Your task to perform on an android device: set an alarm Image 0: 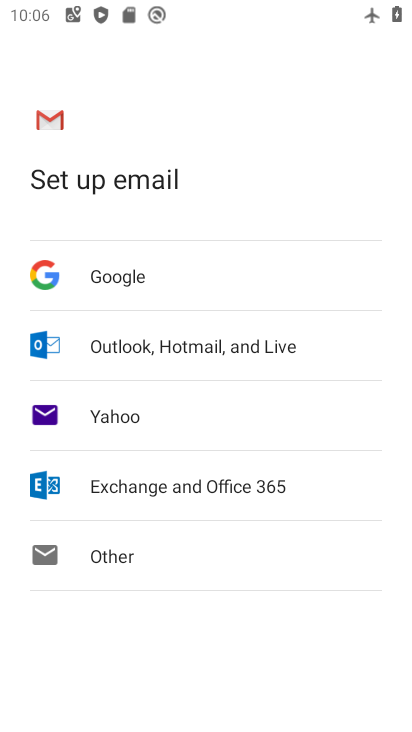
Step 0: press home button
Your task to perform on an android device: set an alarm Image 1: 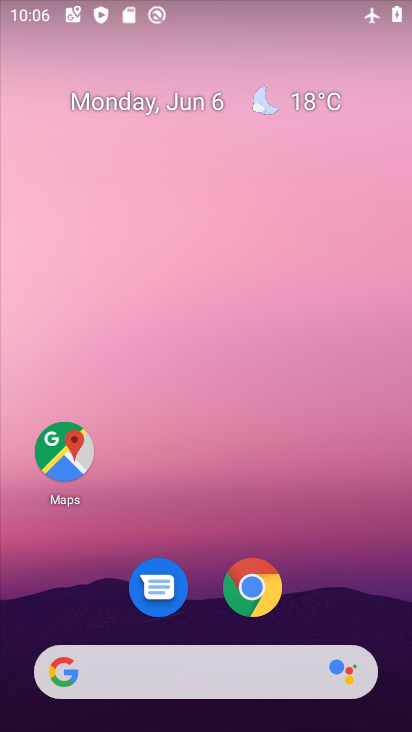
Step 1: drag from (324, 522) to (369, 102)
Your task to perform on an android device: set an alarm Image 2: 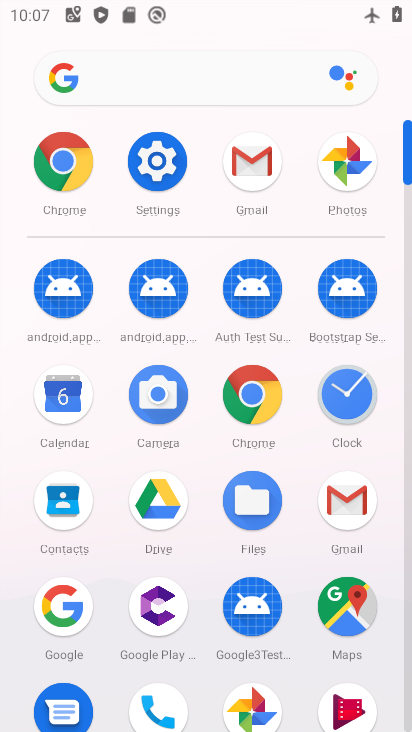
Step 2: click (350, 389)
Your task to perform on an android device: set an alarm Image 3: 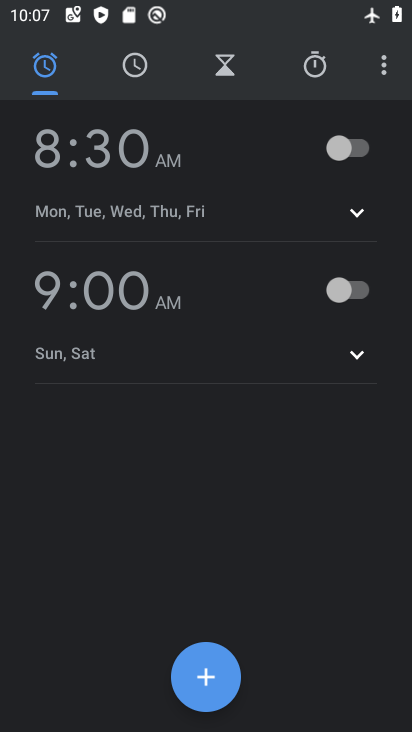
Step 3: click (218, 687)
Your task to perform on an android device: set an alarm Image 4: 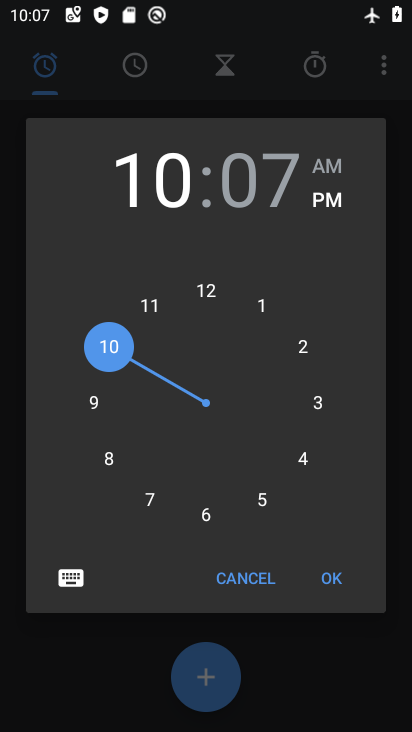
Step 4: click (343, 588)
Your task to perform on an android device: set an alarm Image 5: 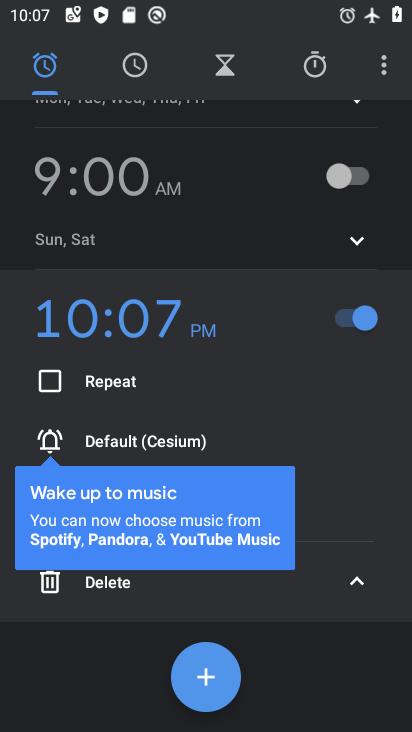
Step 5: task complete